Your task to perform on an android device: Go to battery settings Image 0: 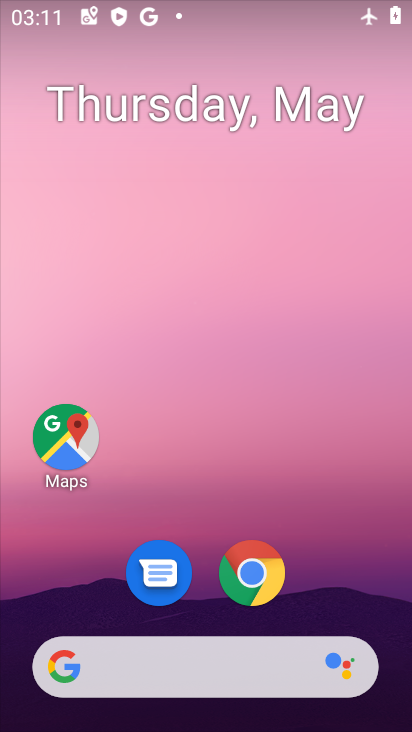
Step 0: drag from (313, 589) to (320, 205)
Your task to perform on an android device: Go to battery settings Image 1: 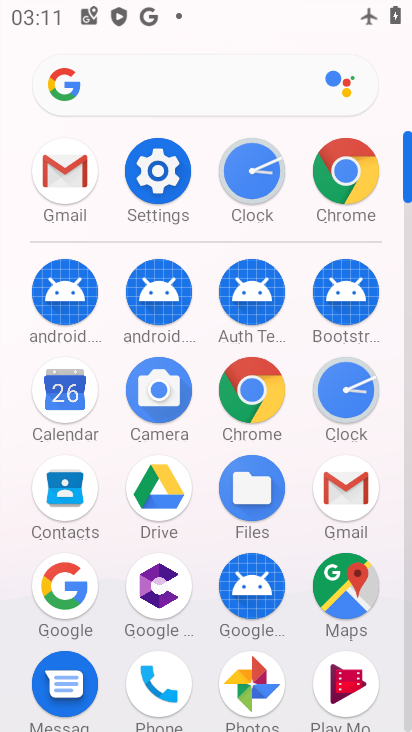
Step 1: click (155, 161)
Your task to perform on an android device: Go to battery settings Image 2: 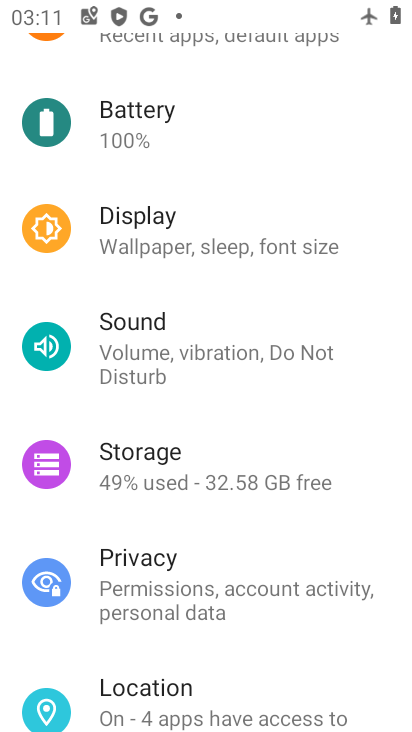
Step 2: click (196, 109)
Your task to perform on an android device: Go to battery settings Image 3: 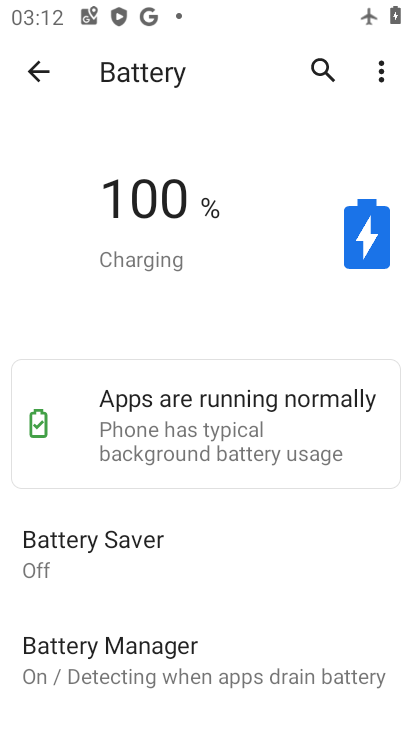
Step 3: task complete